Your task to perform on an android device: set default search engine in the chrome app Image 0: 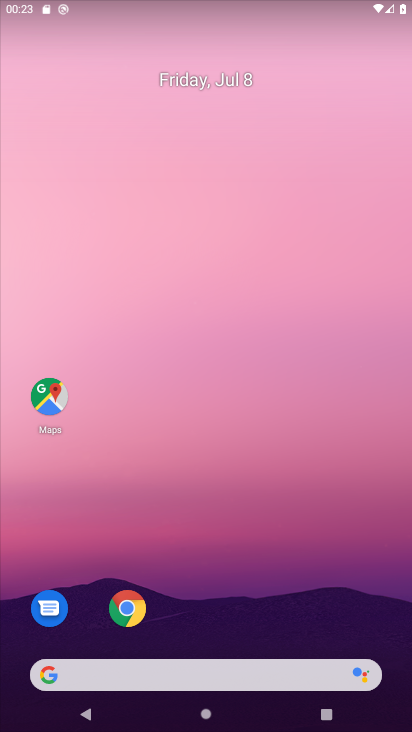
Step 0: drag from (197, 633) to (267, 190)
Your task to perform on an android device: set default search engine in the chrome app Image 1: 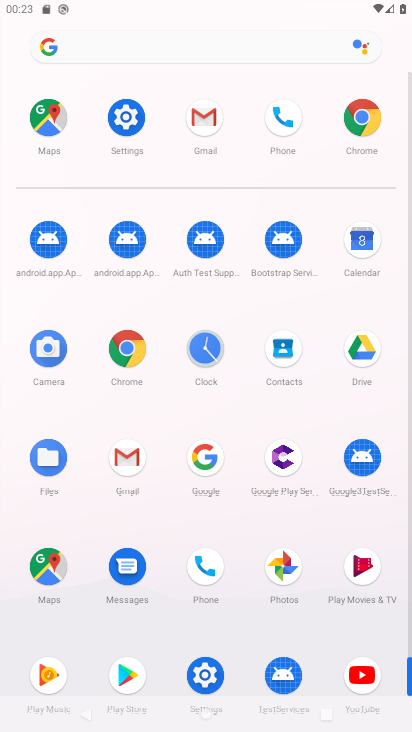
Step 1: click (127, 342)
Your task to perform on an android device: set default search engine in the chrome app Image 2: 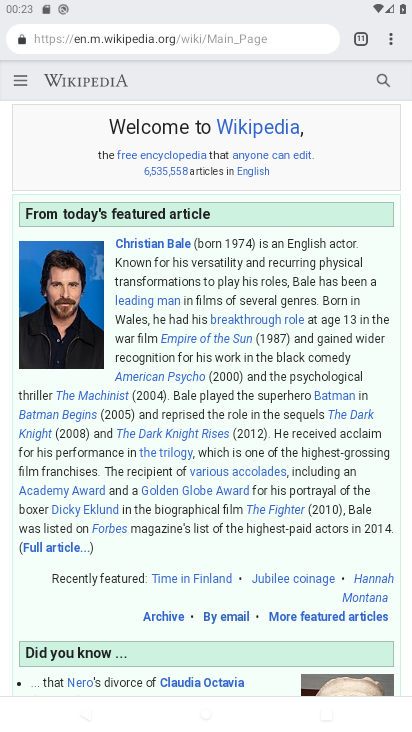
Step 2: click (388, 36)
Your task to perform on an android device: set default search engine in the chrome app Image 3: 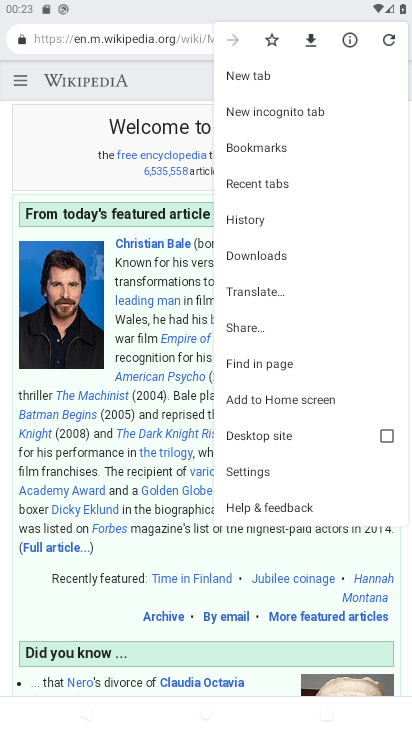
Step 3: click (269, 472)
Your task to perform on an android device: set default search engine in the chrome app Image 4: 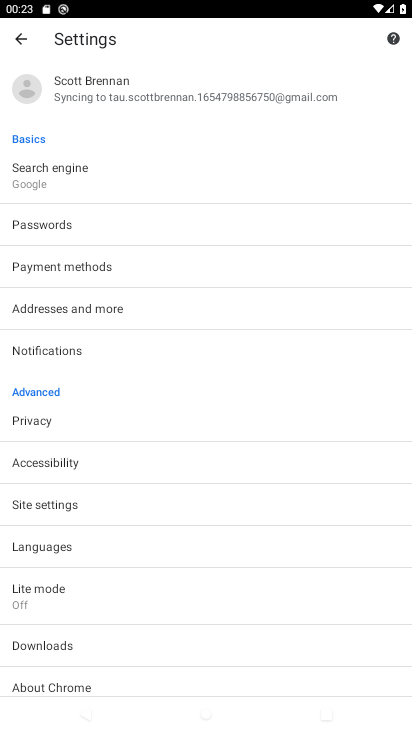
Step 4: click (45, 182)
Your task to perform on an android device: set default search engine in the chrome app Image 5: 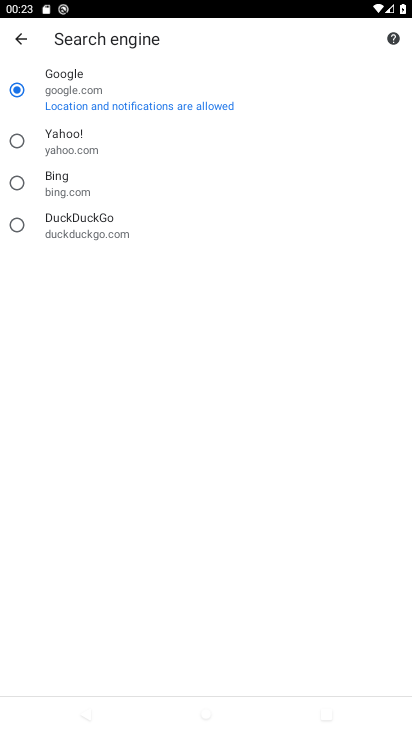
Step 5: click (46, 139)
Your task to perform on an android device: set default search engine in the chrome app Image 6: 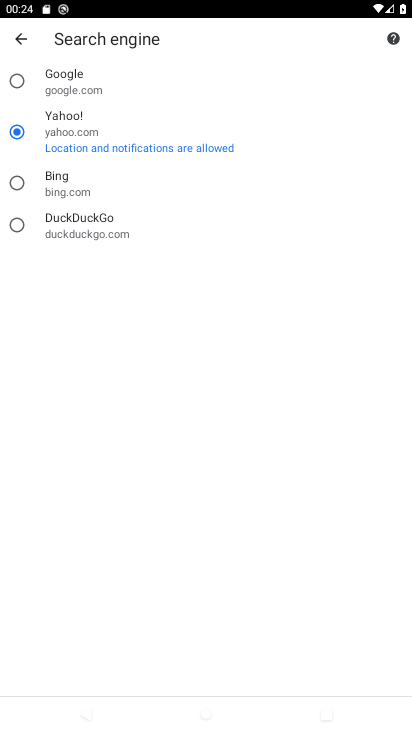
Step 6: task complete